Your task to perform on an android device: What is the news today? Image 0: 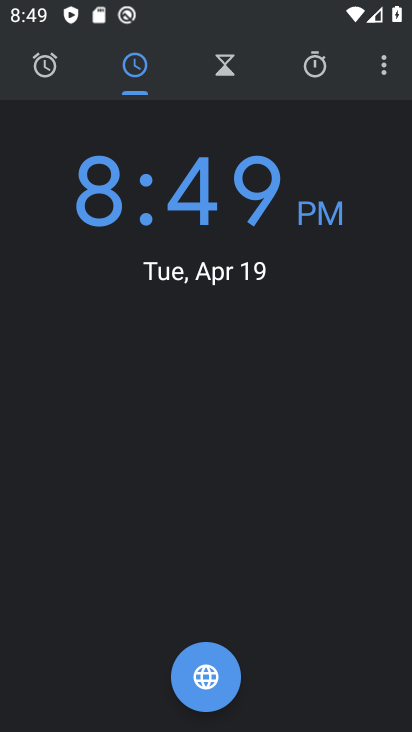
Step 0: press home button
Your task to perform on an android device: What is the news today? Image 1: 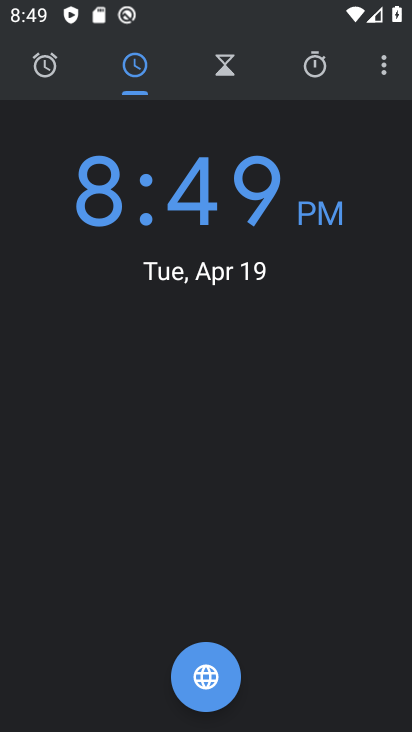
Step 1: press home button
Your task to perform on an android device: What is the news today? Image 2: 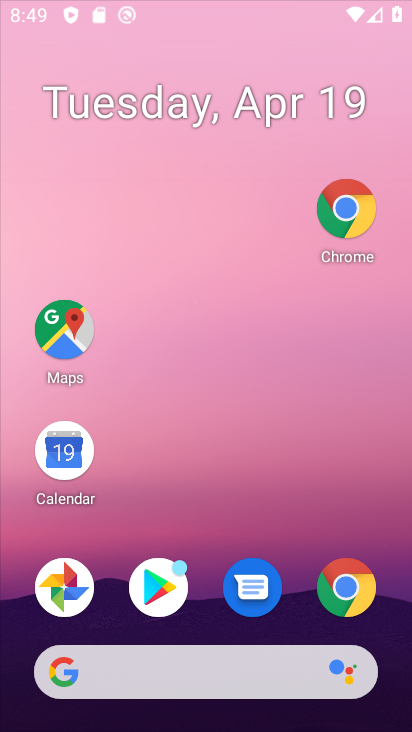
Step 2: press home button
Your task to perform on an android device: What is the news today? Image 3: 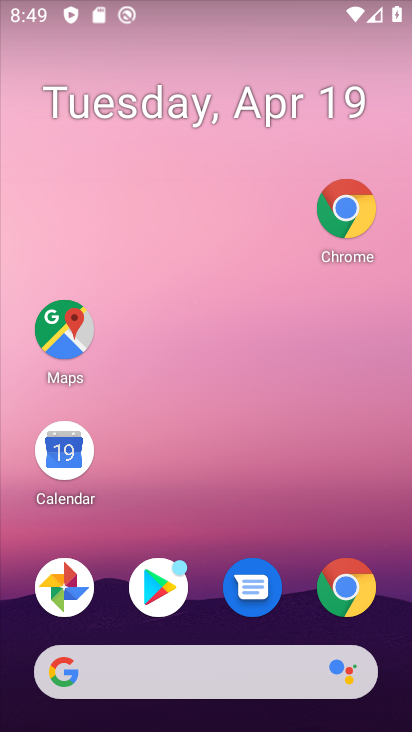
Step 3: press home button
Your task to perform on an android device: What is the news today? Image 4: 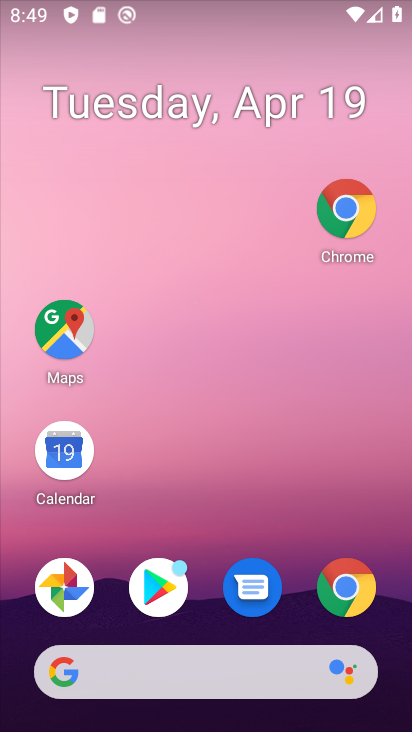
Step 4: drag from (202, 246) to (383, 315)
Your task to perform on an android device: What is the news today? Image 5: 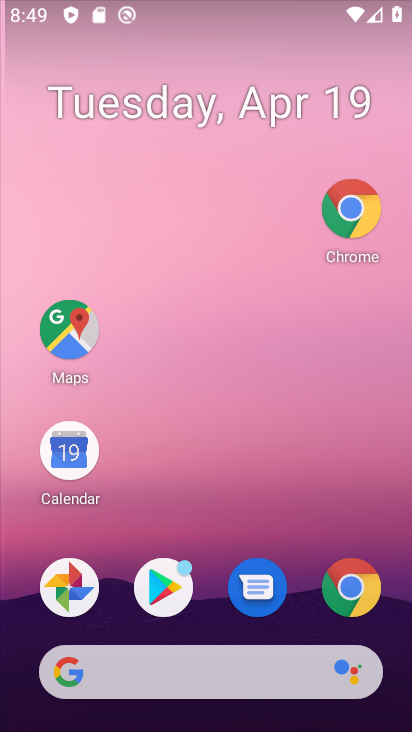
Step 5: drag from (400, 379) to (352, 376)
Your task to perform on an android device: What is the news today? Image 6: 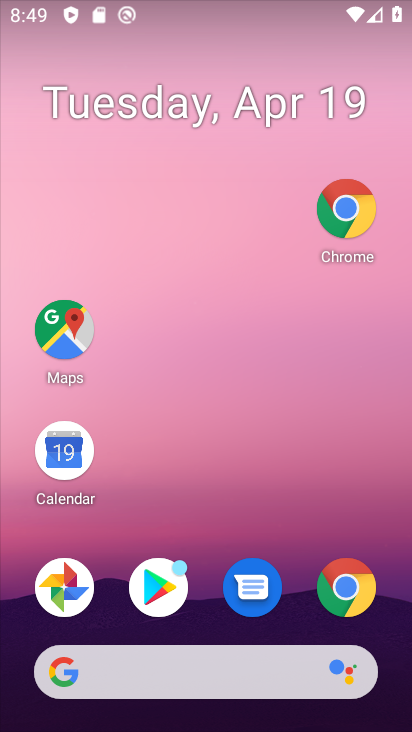
Step 6: drag from (20, 260) to (378, 352)
Your task to perform on an android device: What is the news today? Image 7: 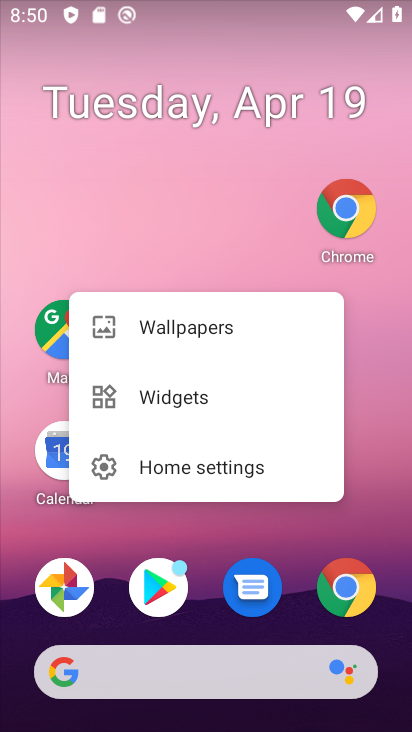
Step 7: drag from (37, 216) to (372, 233)
Your task to perform on an android device: What is the news today? Image 8: 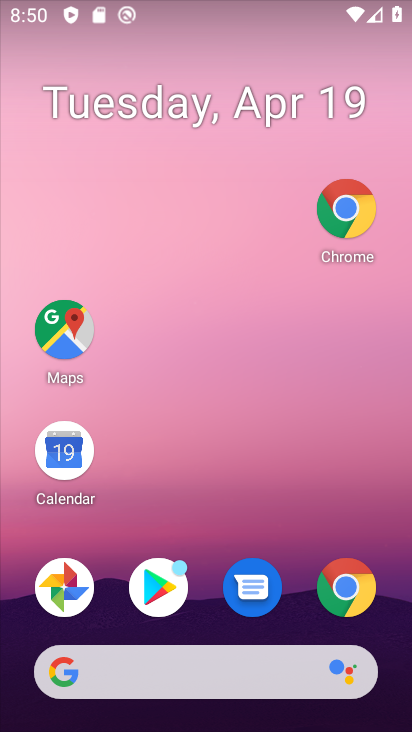
Step 8: click (386, 318)
Your task to perform on an android device: What is the news today? Image 9: 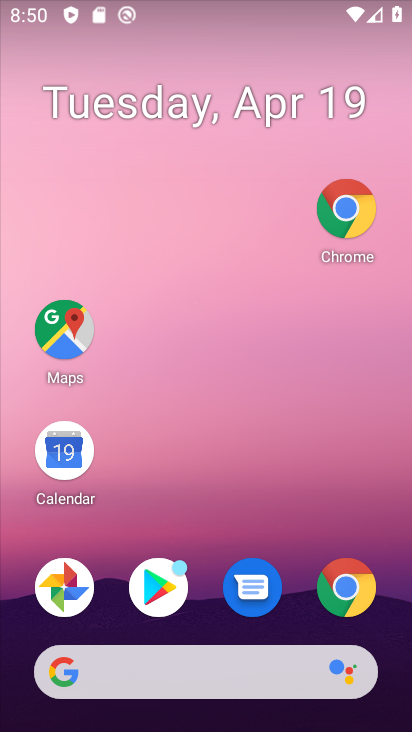
Step 9: drag from (41, 265) to (397, 281)
Your task to perform on an android device: What is the news today? Image 10: 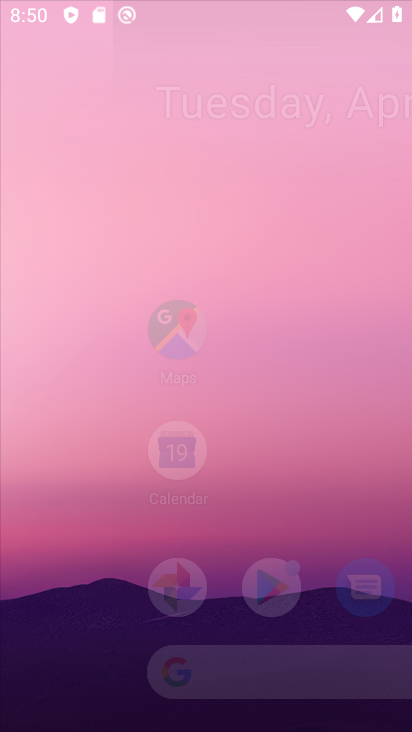
Step 10: drag from (410, 255) to (378, 233)
Your task to perform on an android device: What is the news today? Image 11: 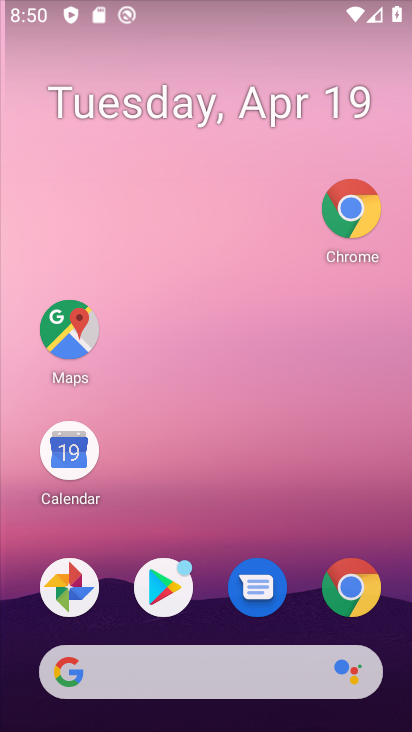
Step 11: click (408, 260)
Your task to perform on an android device: What is the news today? Image 12: 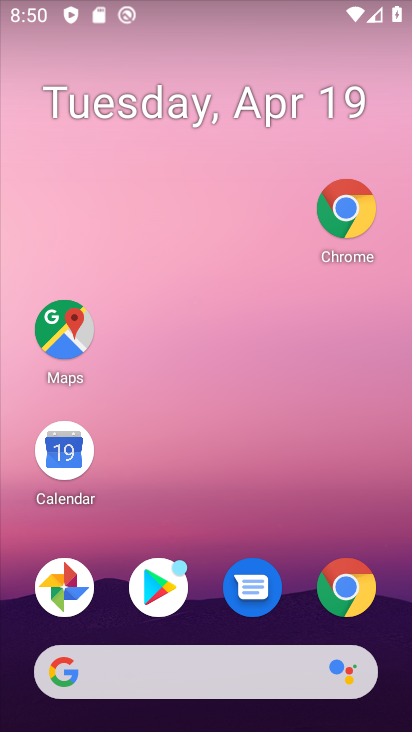
Step 12: drag from (16, 283) to (395, 313)
Your task to perform on an android device: What is the news today? Image 13: 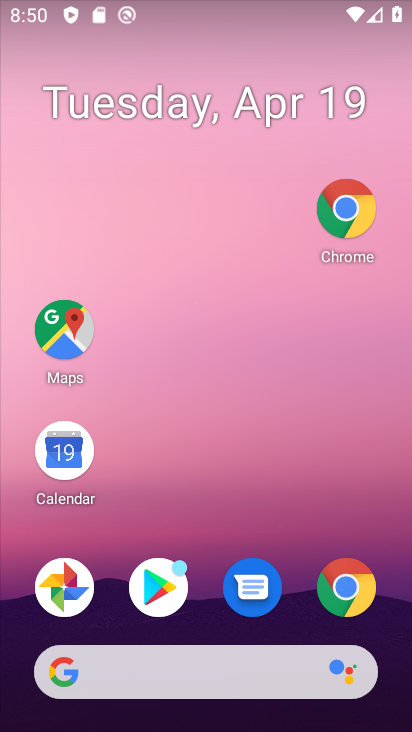
Step 13: drag from (104, 248) to (384, 359)
Your task to perform on an android device: What is the news today? Image 14: 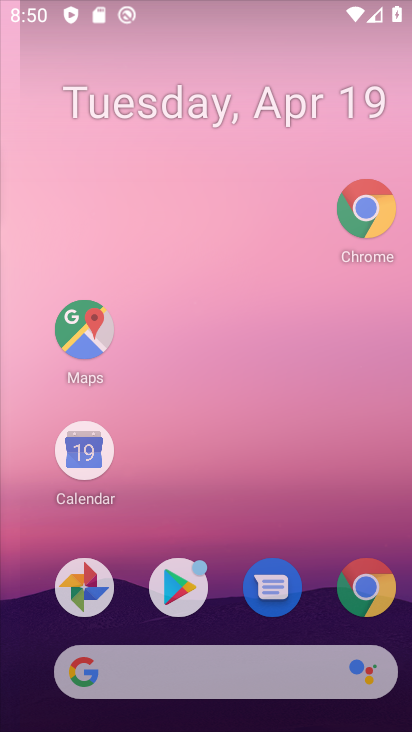
Step 14: drag from (403, 319) to (375, 225)
Your task to perform on an android device: What is the news today? Image 15: 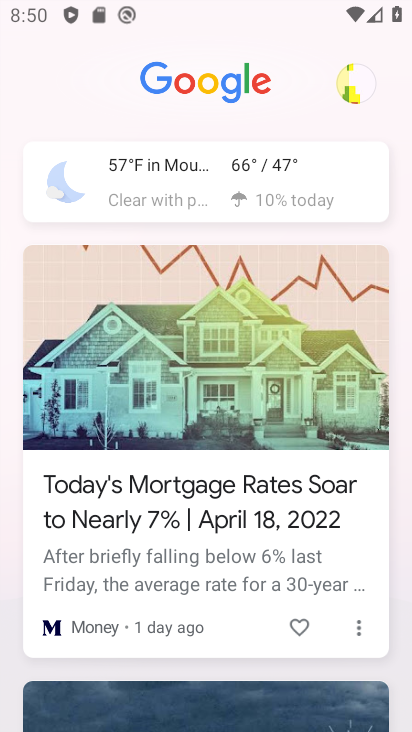
Step 15: drag from (192, 227) to (396, 350)
Your task to perform on an android device: What is the news today? Image 16: 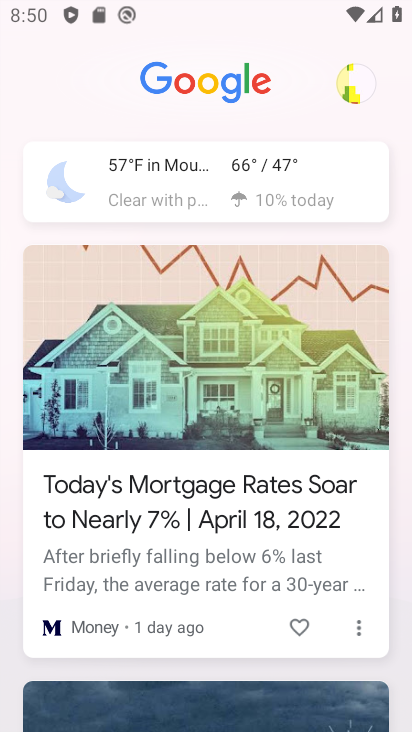
Step 16: click (233, 211)
Your task to perform on an android device: What is the news today? Image 17: 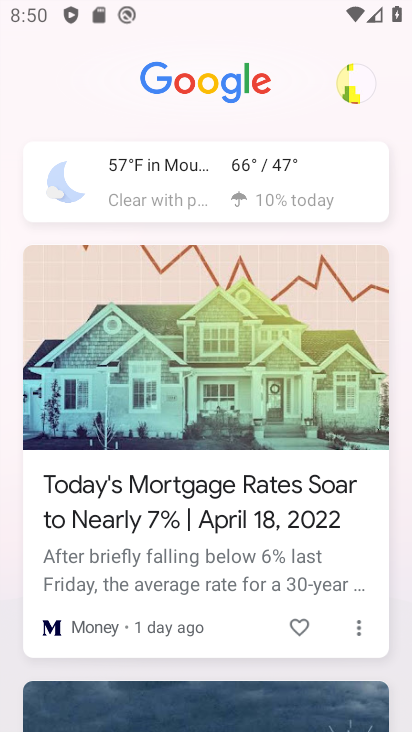
Step 17: drag from (275, 570) to (157, 186)
Your task to perform on an android device: What is the news today? Image 18: 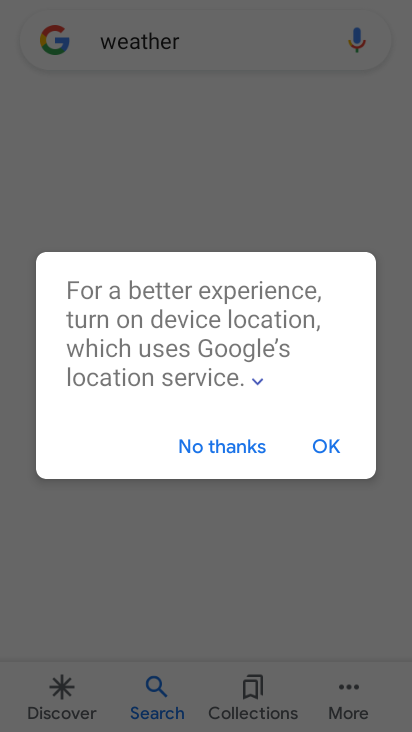
Step 18: click (241, 454)
Your task to perform on an android device: What is the news today? Image 19: 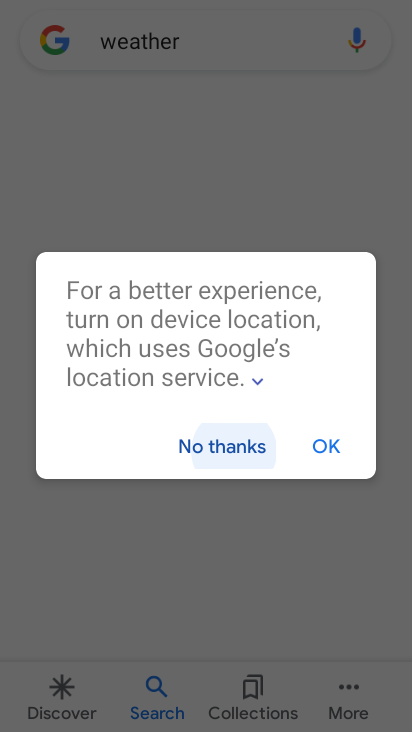
Step 19: click (213, 453)
Your task to perform on an android device: What is the news today? Image 20: 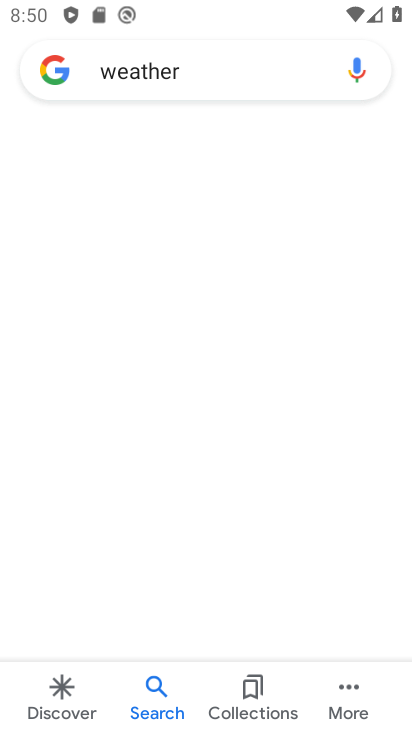
Step 20: click (213, 453)
Your task to perform on an android device: What is the news today? Image 21: 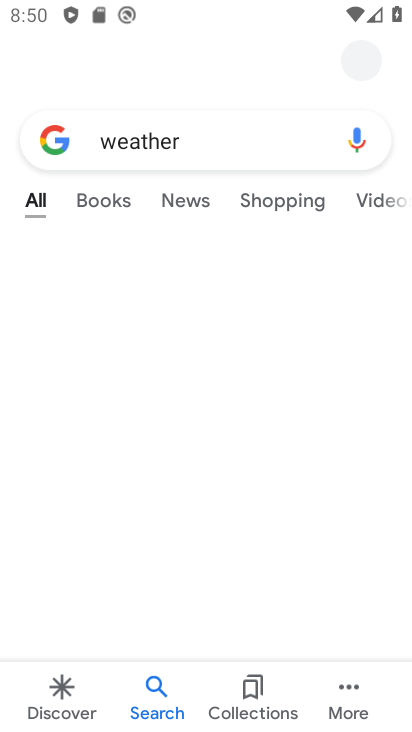
Step 21: drag from (224, 571) to (220, 68)
Your task to perform on an android device: What is the news today? Image 22: 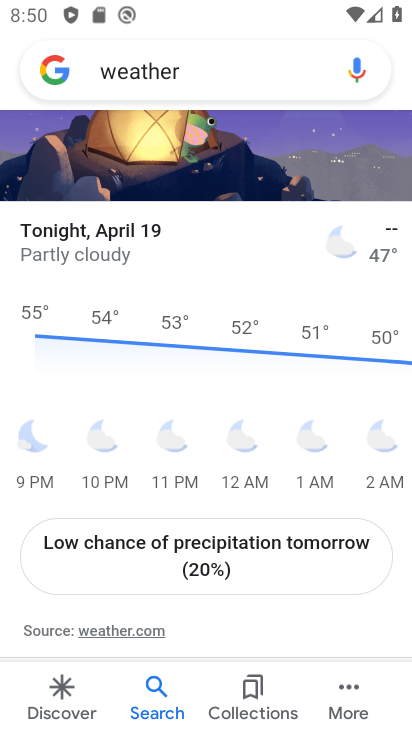
Step 22: drag from (187, 325) to (173, 179)
Your task to perform on an android device: What is the news today? Image 23: 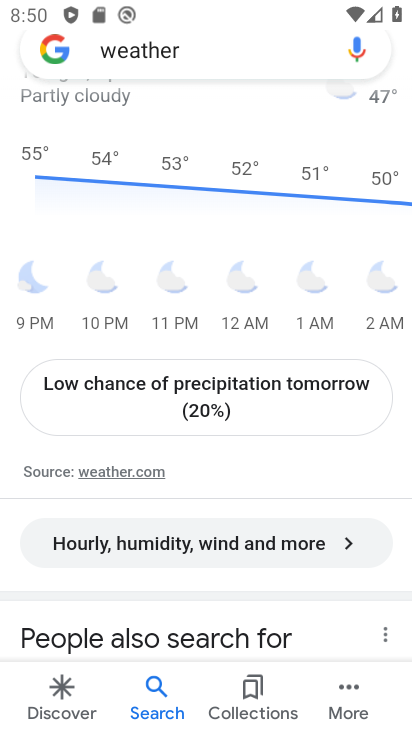
Step 23: drag from (207, 597) to (207, 260)
Your task to perform on an android device: What is the news today? Image 24: 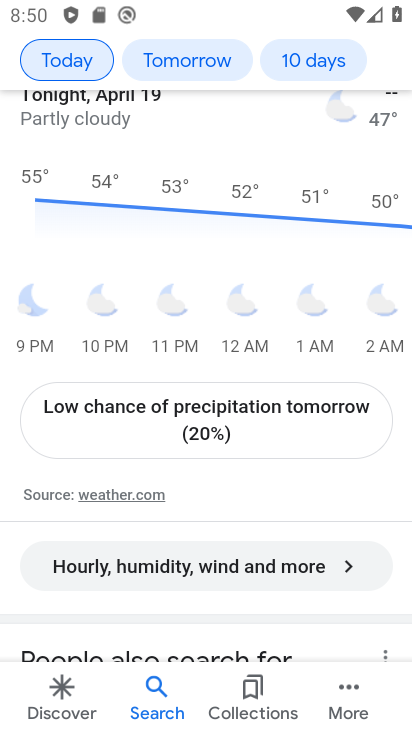
Step 24: drag from (233, 676) to (231, 220)
Your task to perform on an android device: What is the news today? Image 25: 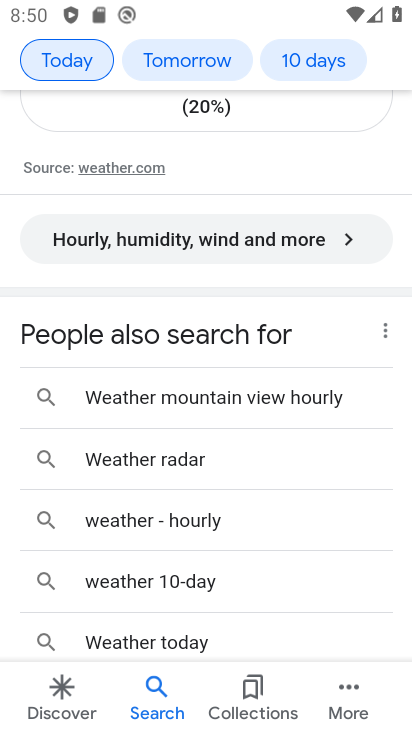
Step 25: drag from (237, 630) to (237, 196)
Your task to perform on an android device: What is the news today? Image 26: 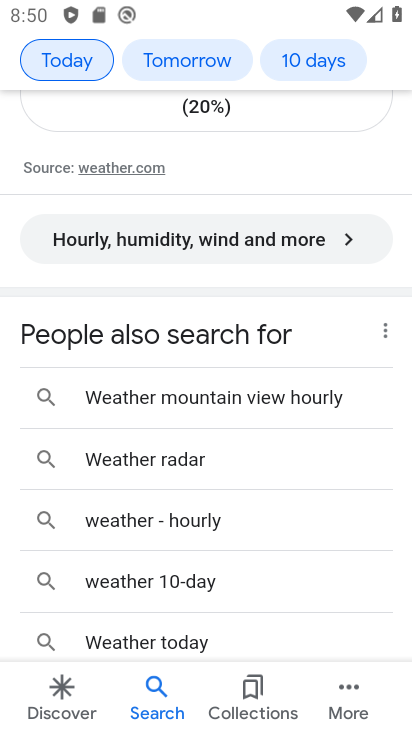
Step 26: drag from (257, 633) to (257, 274)
Your task to perform on an android device: What is the news today? Image 27: 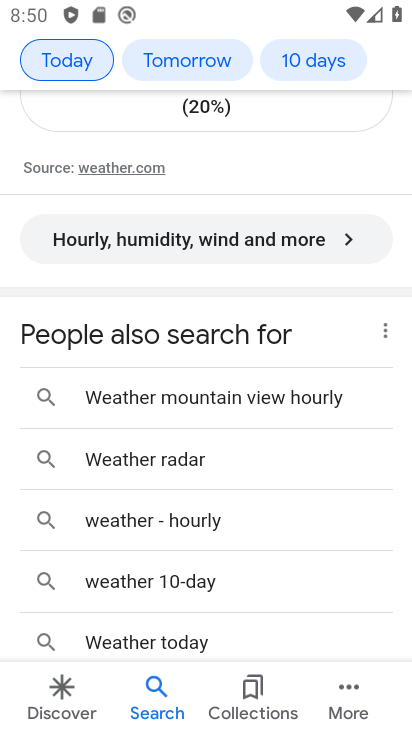
Step 27: click (219, 339)
Your task to perform on an android device: What is the news today? Image 28: 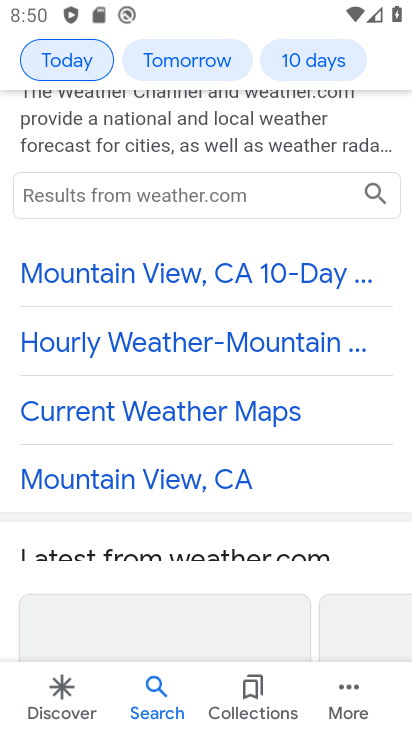
Step 28: drag from (244, 612) to (242, 357)
Your task to perform on an android device: What is the news today? Image 29: 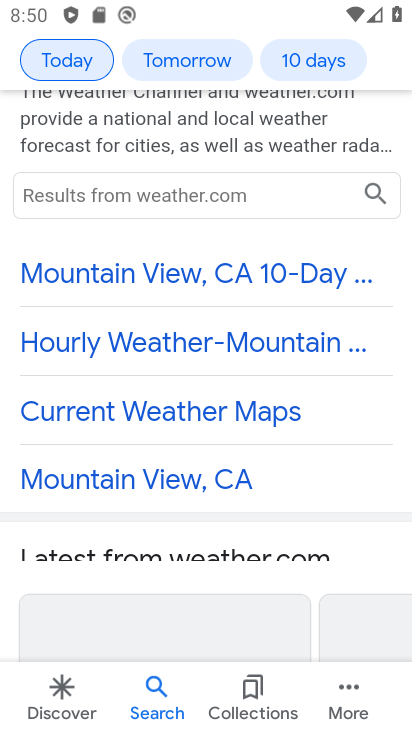
Step 29: drag from (247, 588) to (242, 262)
Your task to perform on an android device: What is the news today? Image 30: 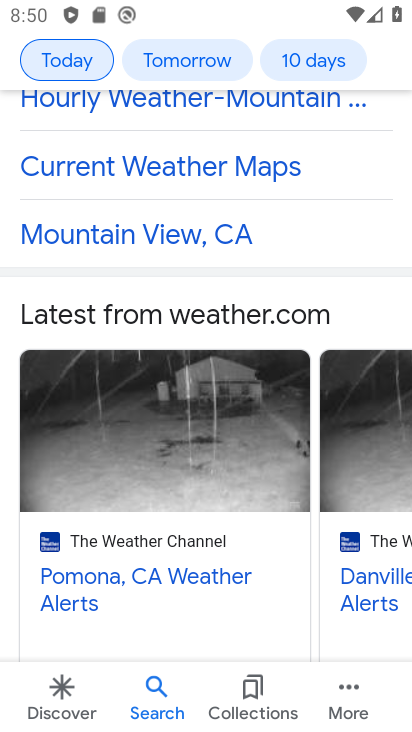
Step 30: drag from (258, 547) to (255, 315)
Your task to perform on an android device: What is the news today? Image 31: 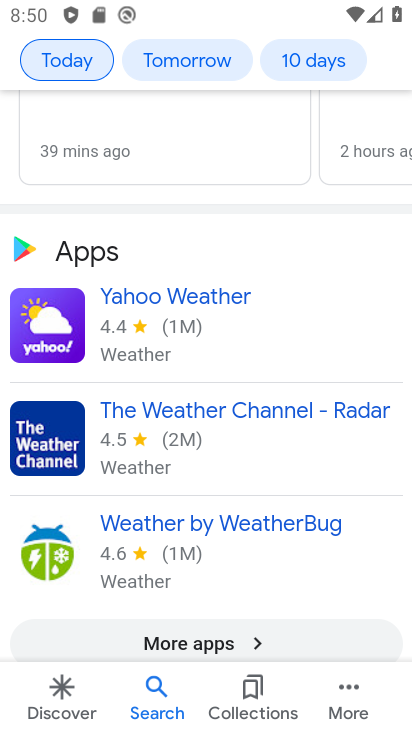
Step 31: drag from (222, 499) to (167, 215)
Your task to perform on an android device: What is the news today? Image 32: 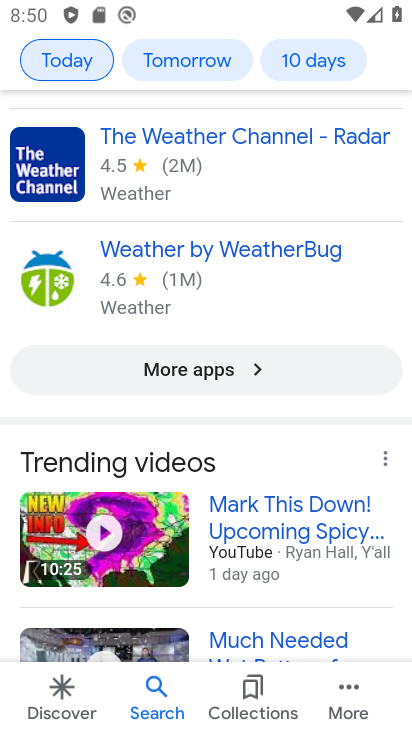
Step 32: drag from (260, 501) to (210, 187)
Your task to perform on an android device: What is the news today? Image 33: 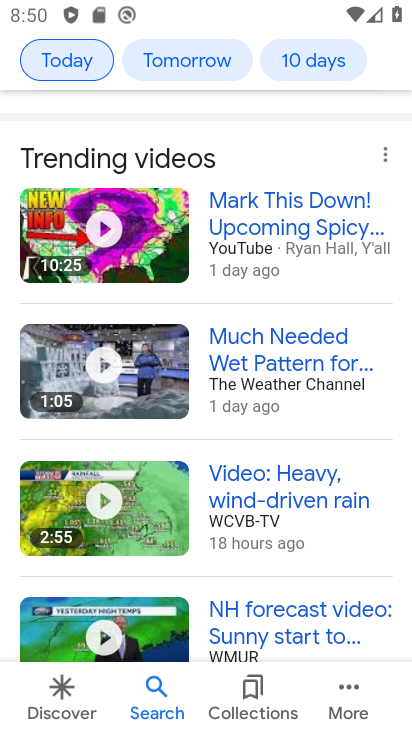
Step 33: drag from (229, 493) to (182, 78)
Your task to perform on an android device: What is the news today? Image 34: 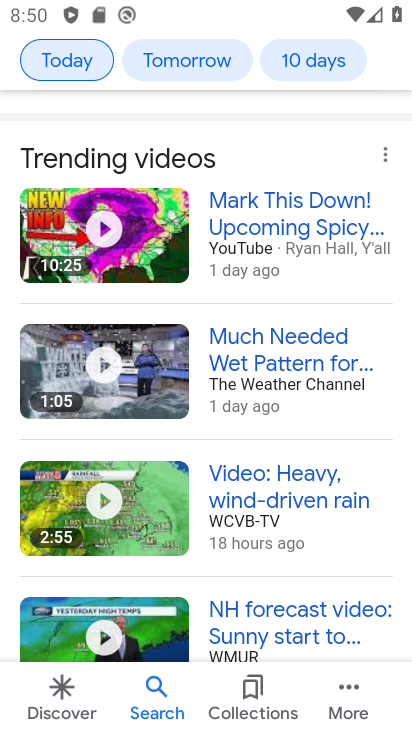
Step 34: drag from (223, 489) to (190, 139)
Your task to perform on an android device: What is the news today? Image 35: 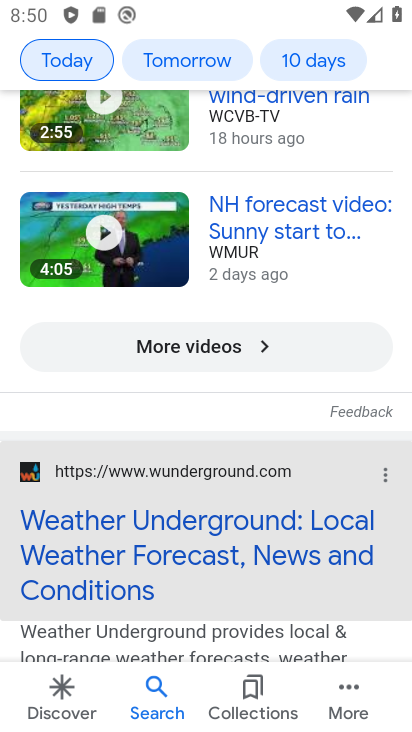
Step 35: drag from (234, 434) to (200, 98)
Your task to perform on an android device: What is the news today? Image 36: 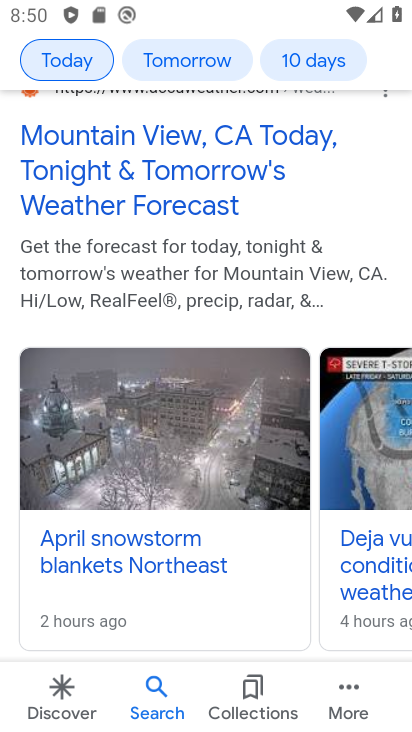
Step 36: drag from (246, 447) to (130, 109)
Your task to perform on an android device: What is the news today? Image 37: 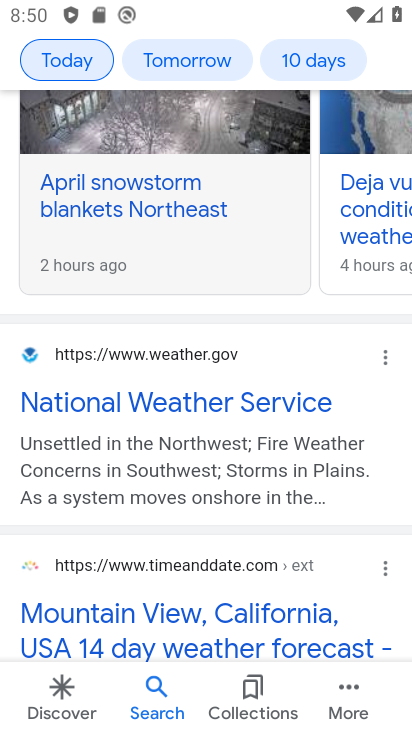
Step 37: drag from (202, 483) to (201, 150)
Your task to perform on an android device: What is the news today? Image 38: 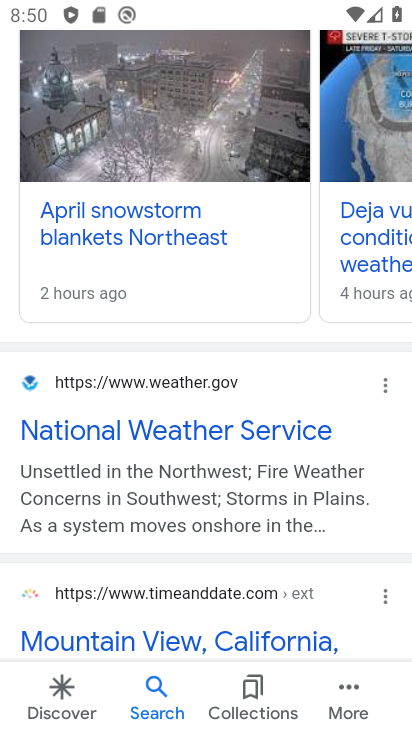
Step 38: click (215, 188)
Your task to perform on an android device: What is the news today? Image 39: 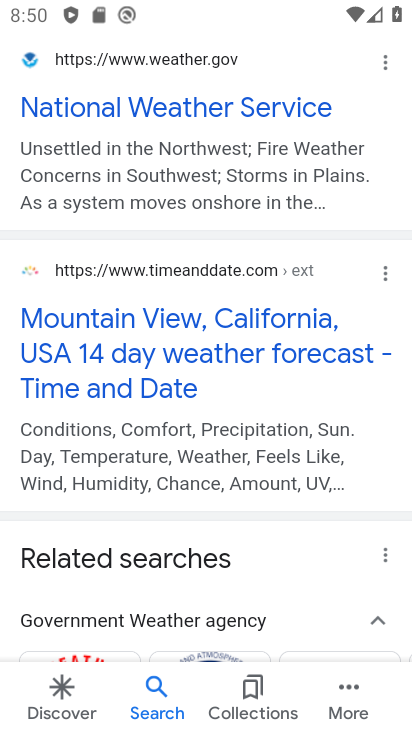
Step 39: drag from (216, 504) to (205, 115)
Your task to perform on an android device: What is the news today? Image 40: 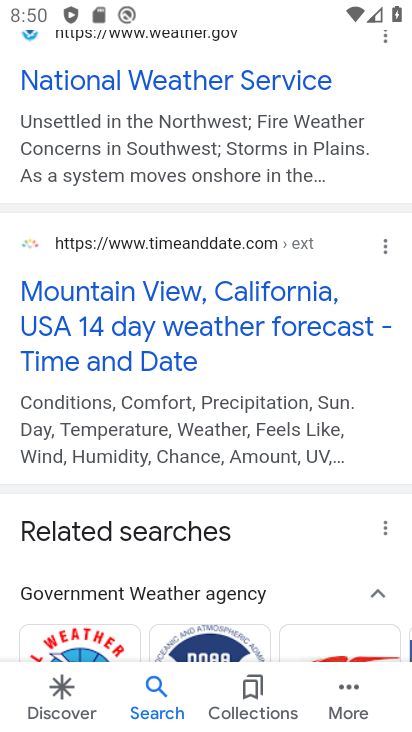
Step 40: drag from (169, 484) to (160, 70)
Your task to perform on an android device: What is the news today? Image 41: 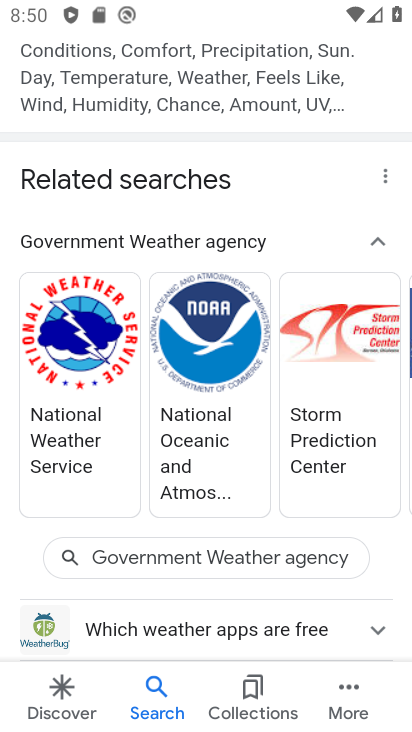
Step 41: drag from (217, 442) to (246, 119)
Your task to perform on an android device: What is the news today? Image 42: 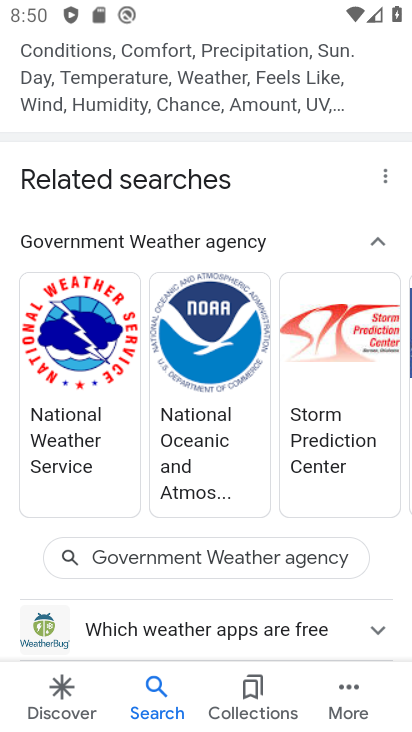
Step 42: click (259, 211)
Your task to perform on an android device: What is the news today? Image 43: 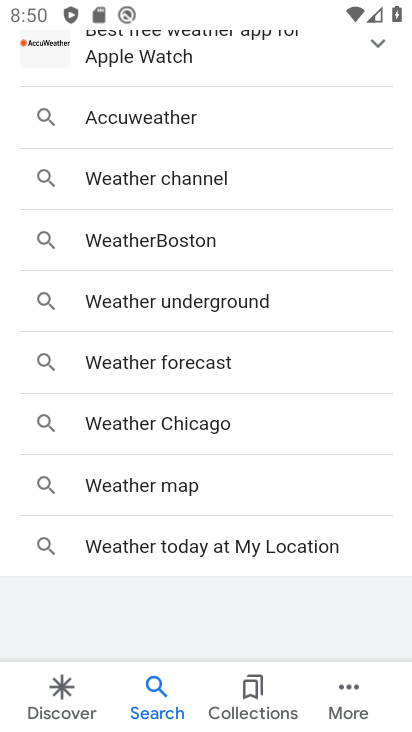
Step 43: drag from (228, 562) to (214, 181)
Your task to perform on an android device: What is the news today? Image 44: 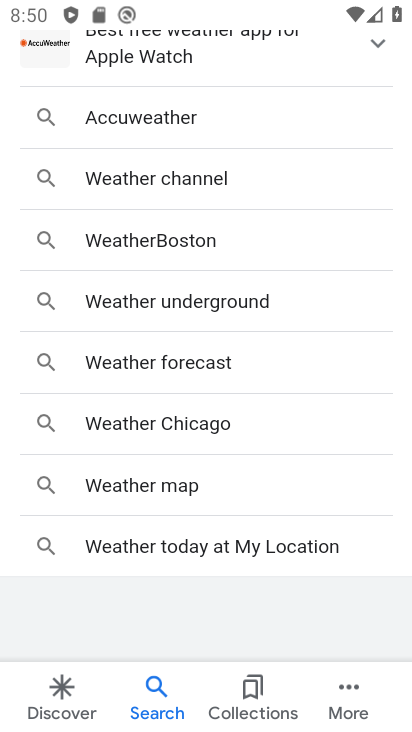
Step 44: drag from (233, 639) to (200, 153)
Your task to perform on an android device: What is the news today? Image 45: 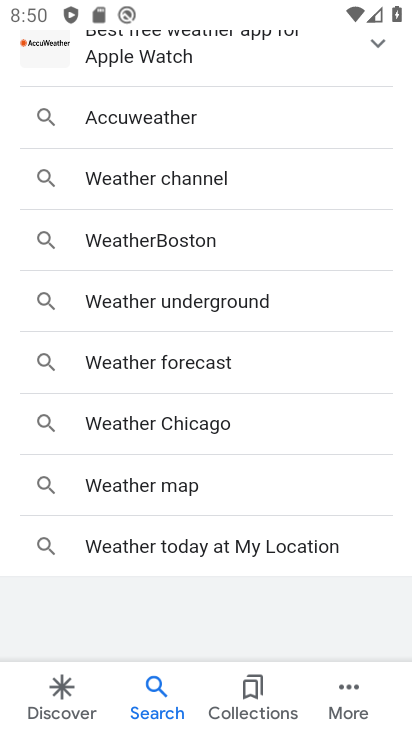
Step 45: click (182, 98)
Your task to perform on an android device: What is the news today? Image 46: 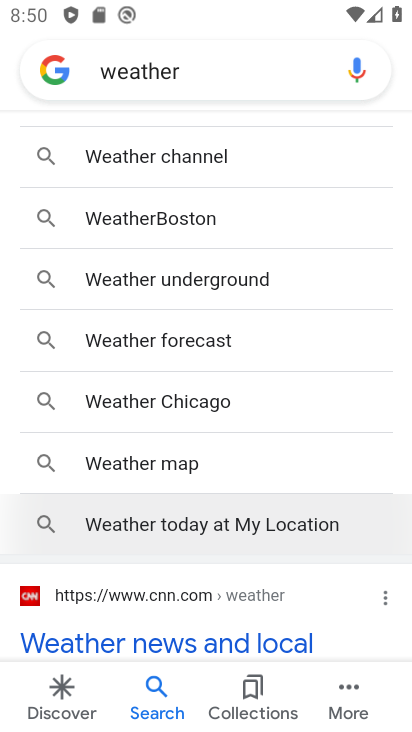
Step 46: task complete